Your task to perform on an android device: change notification settings in the gmail app Image 0: 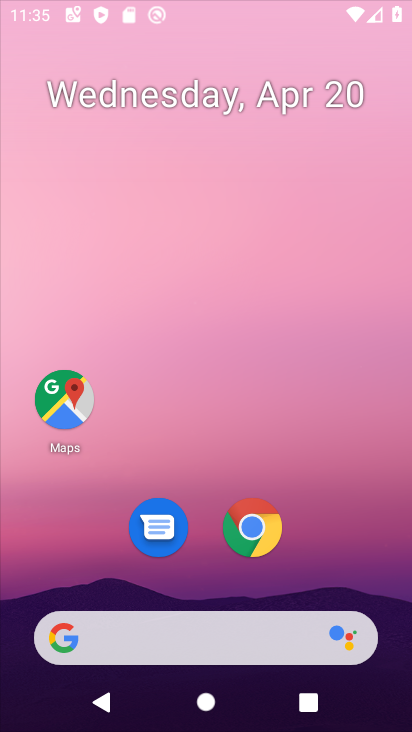
Step 0: drag from (313, 564) to (345, 105)
Your task to perform on an android device: change notification settings in the gmail app Image 1: 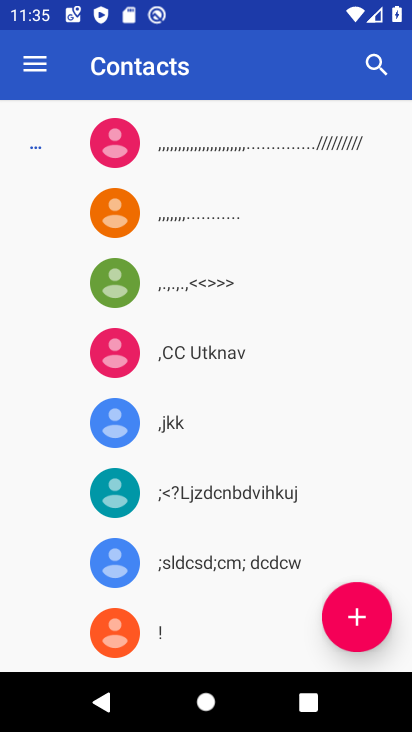
Step 1: press home button
Your task to perform on an android device: change notification settings in the gmail app Image 2: 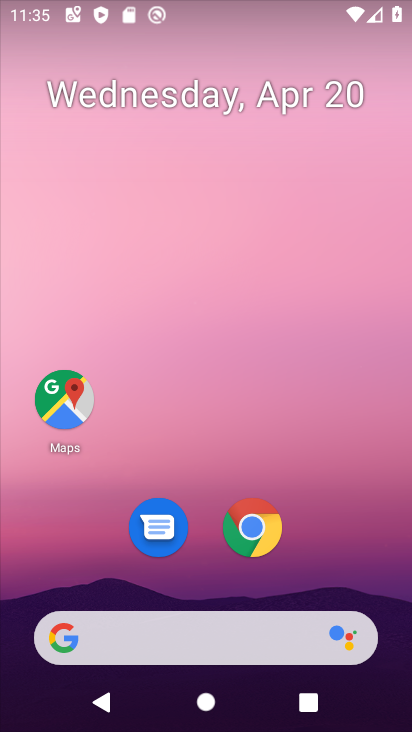
Step 2: drag from (321, 562) to (337, 136)
Your task to perform on an android device: change notification settings in the gmail app Image 3: 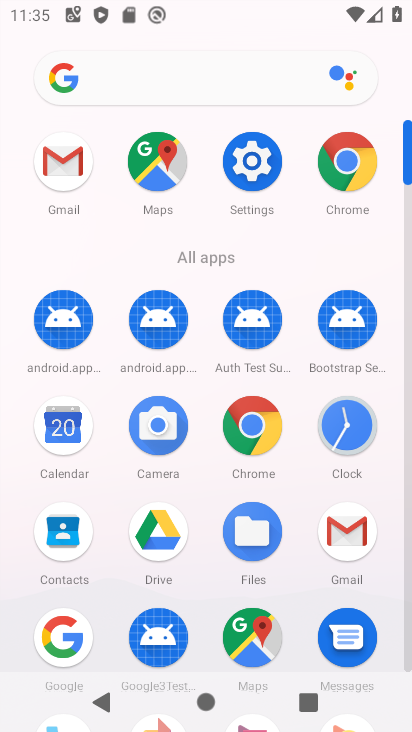
Step 3: click (337, 545)
Your task to perform on an android device: change notification settings in the gmail app Image 4: 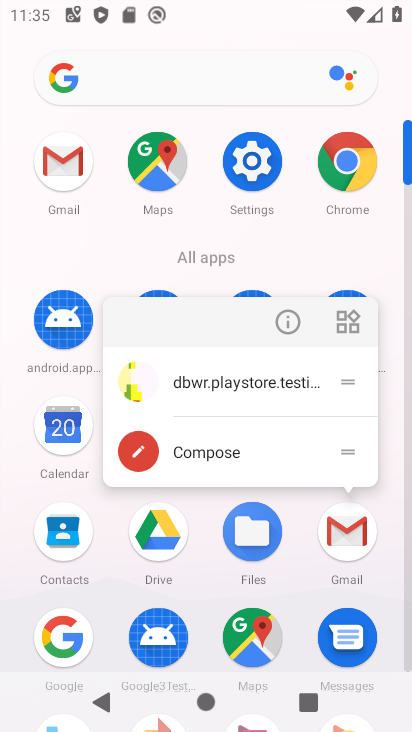
Step 4: click (336, 541)
Your task to perform on an android device: change notification settings in the gmail app Image 5: 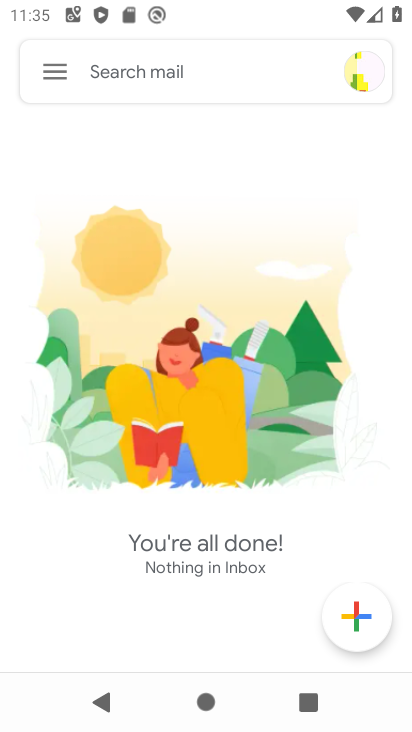
Step 5: click (53, 62)
Your task to perform on an android device: change notification settings in the gmail app Image 6: 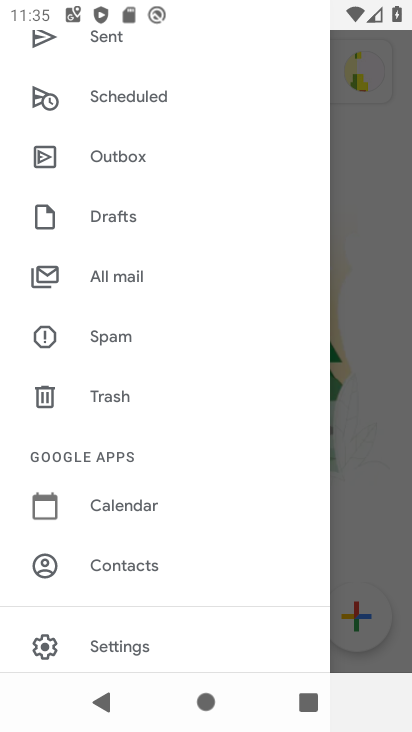
Step 6: click (129, 645)
Your task to perform on an android device: change notification settings in the gmail app Image 7: 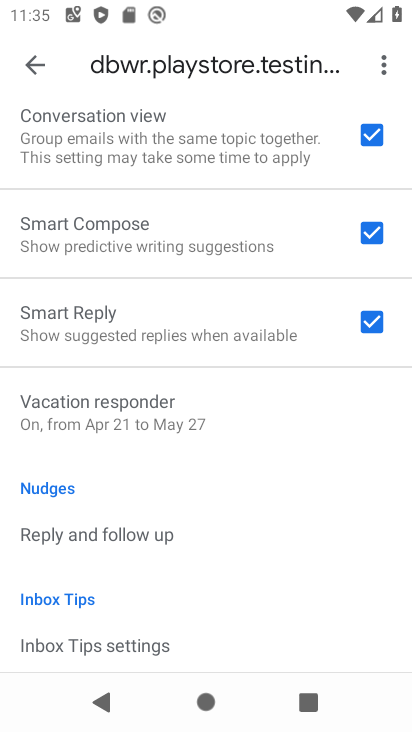
Step 7: drag from (235, 300) to (253, 139)
Your task to perform on an android device: change notification settings in the gmail app Image 8: 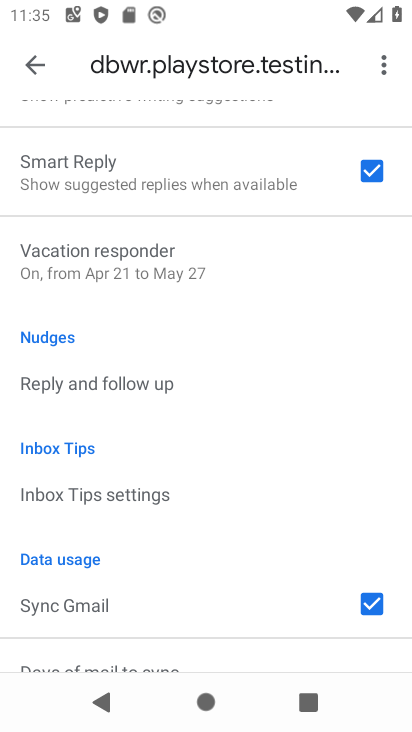
Step 8: drag from (228, 216) to (236, 717)
Your task to perform on an android device: change notification settings in the gmail app Image 9: 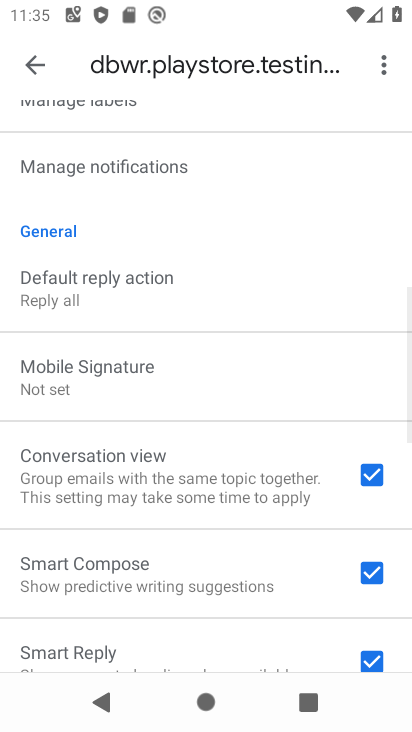
Step 9: drag from (233, 309) to (232, 636)
Your task to perform on an android device: change notification settings in the gmail app Image 10: 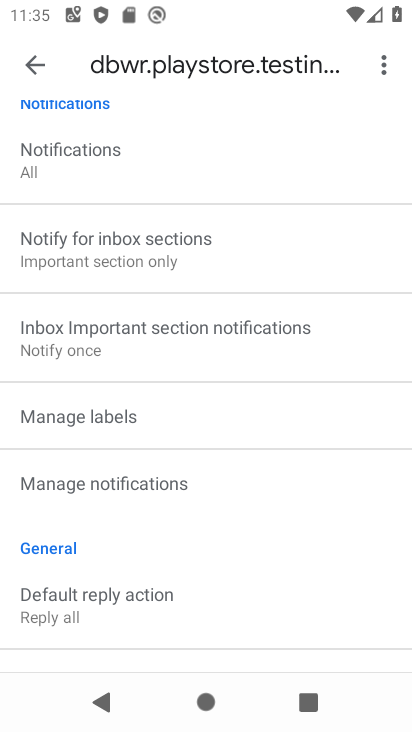
Step 10: click (125, 478)
Your task to perform on an android device: change notification settings in the gmail app Image 11: 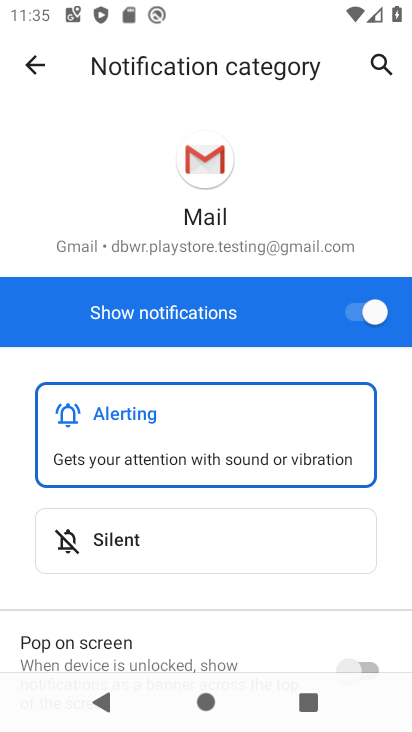
Step 11: click (355, 300)
Your task to perform on an android device: change notification settings in the gmail app Image 12: 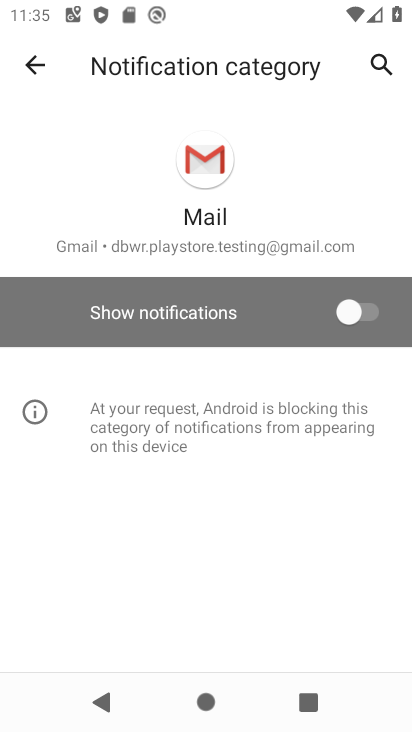
Step 12: task complete